Your task to perform on an android device: Open battery settings Image 0: 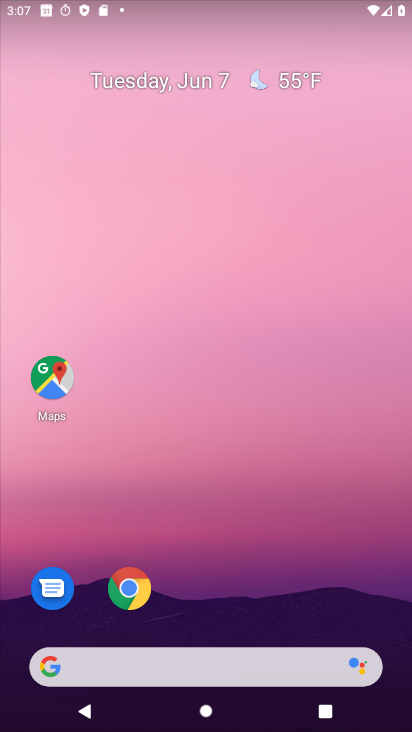
Step 0: press home button
Your task to perform on an android device: Open battery settings Image 1: 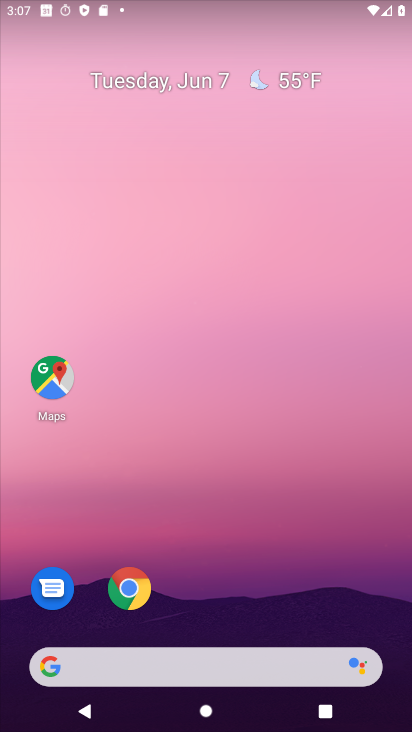
Step 1: drag from (266, 624) to (313, 189)
Your task to perform on an android device: Open battery settings Image 2: 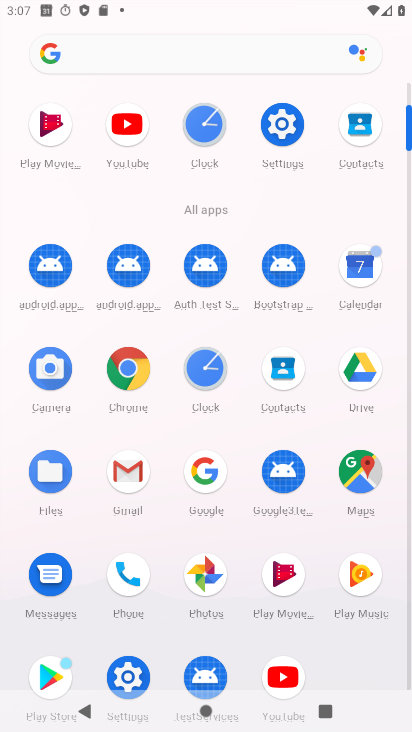
Step 2: click (283, 138)
Your task to perform on an android device: Open battery settings Image 3: 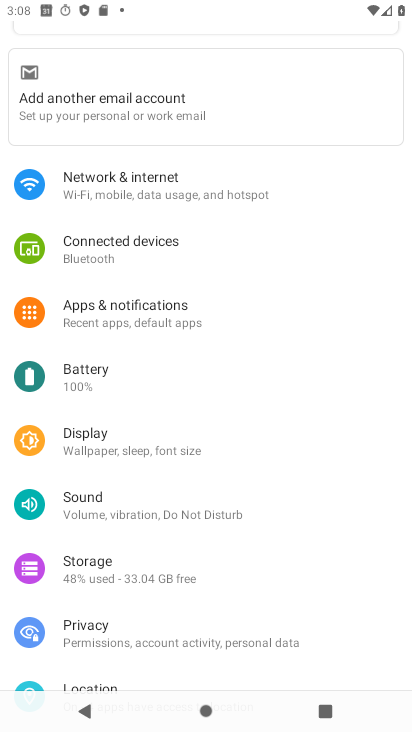
Step 3: click (84, 373)
Your task to perform on an android device: Open battery settings Image 4: 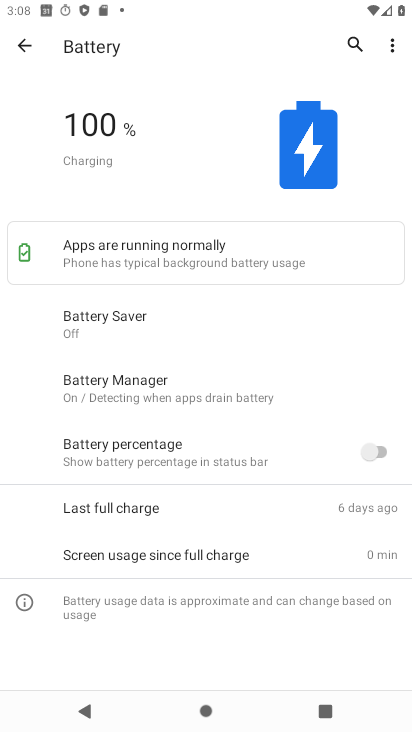
Step 4: task complete